Your task to perform on an android device: Open calendar and show me the second week of next month Image 0: 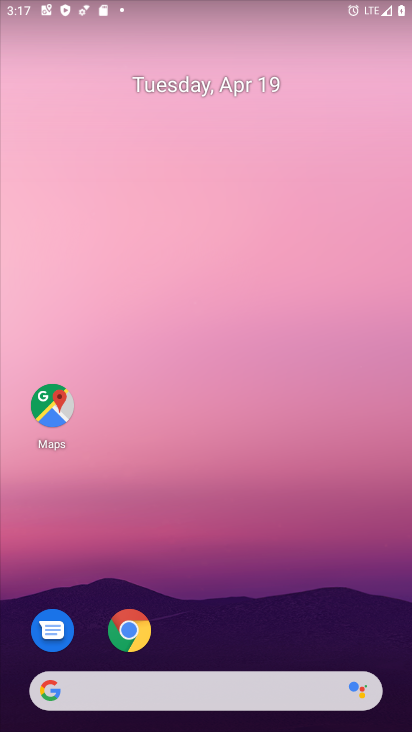
Step 0: drag from (217, 722) to (207, 109)
Your task to perform on an android device: Open calendar and show me the second week of next month Image 1: 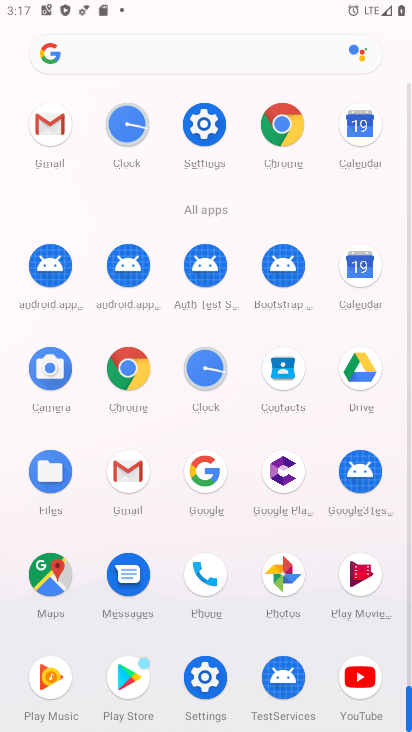
Step 1: click (365, 268)
Your task to perform on an android device: Open calendar and show me the second week of next month Image 2: 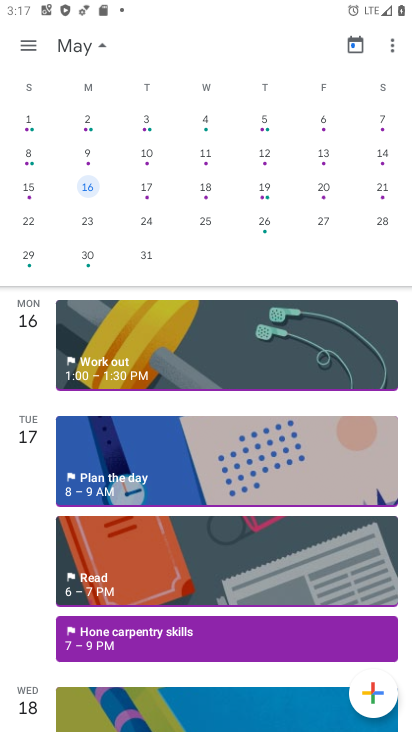
Step 2: click (89, 152)
Your task to perform on an android device: Open calendar and show me the second week of next month Image 3: 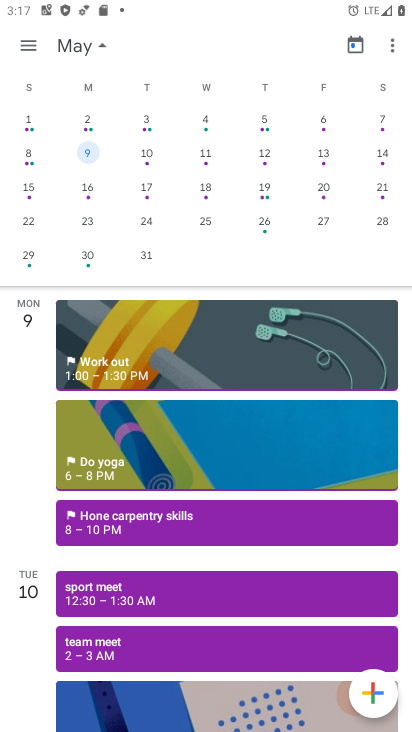
Step 3: task complete